Your task to perform on an android device: open wifi settings Image 0: 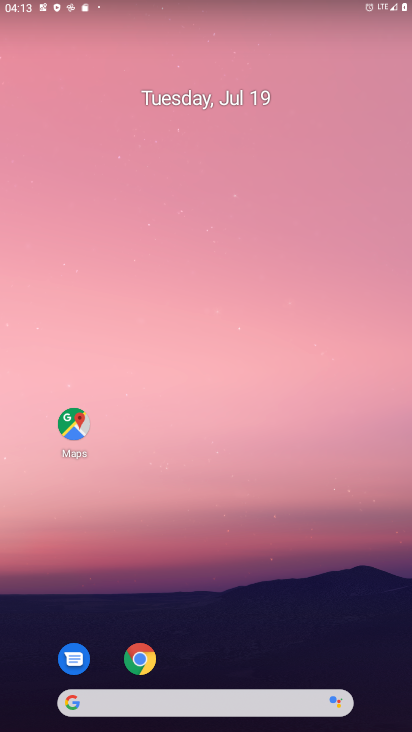
Step 0: drag from (394, 0) to (216, 578)
Your task to perform on an android device: open wifi settings Image 1: 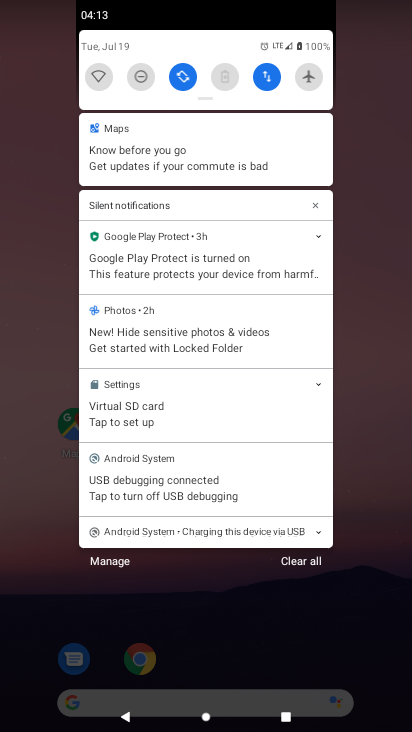
Step 1: click (96, 71)
Your task to perform on an android device: open wifi settings Image 2: 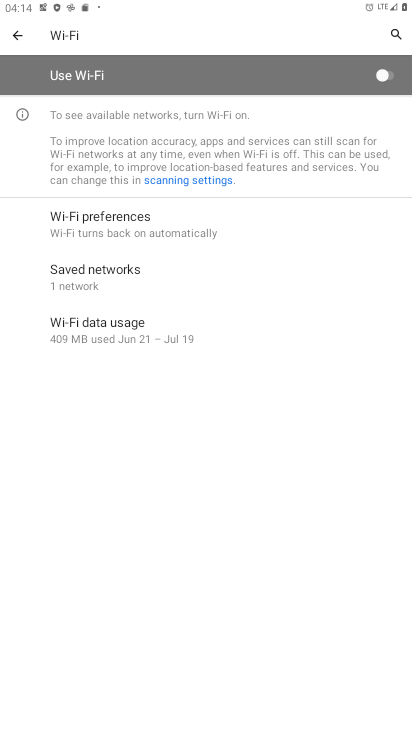
Step 2: task complete